Your task to perform on an android device: set an alarm Image 0: 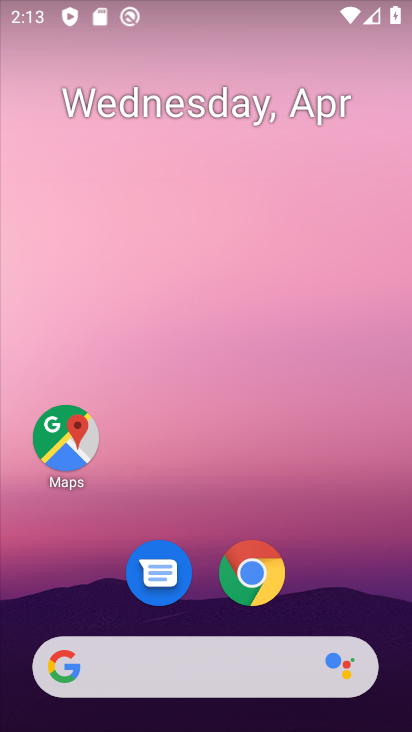
Step 0: drag from (333, 563) to (336, 177)
Your task to perform on an android device: set an alarm Image 1: 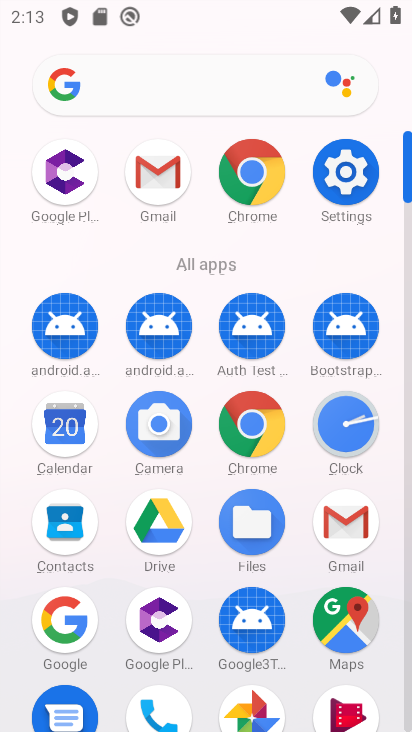
Step 1: click (342, 431)
Your task to perform on an android device: set an alarm Image 2: 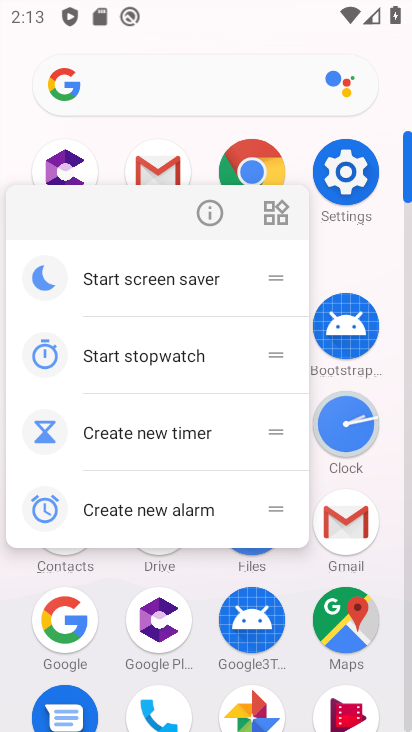
Step 2: click (368, 415)
Your task to perform on an android device: set an alarm Image 3: 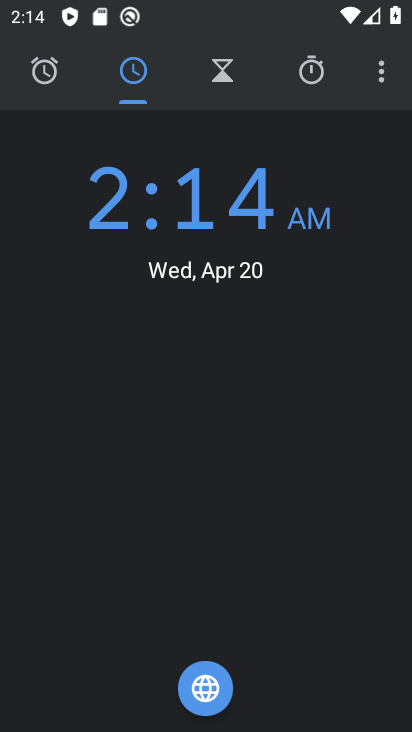
Step 3: click (48, 72)
Your task to perform on an android device: set an alarm Image 4: 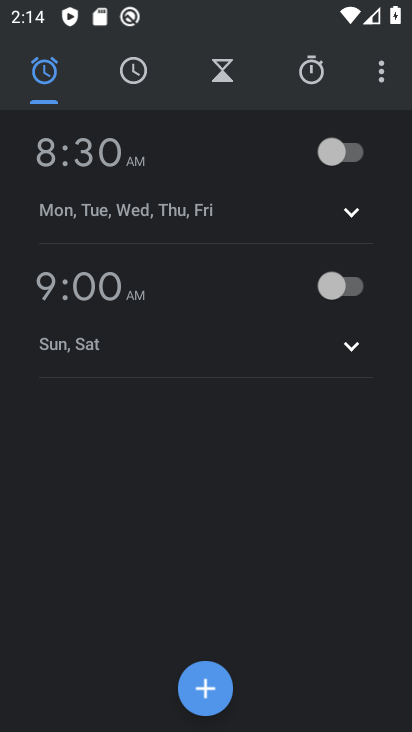
Step 4: click (205, 685)
Your task to perform on an android device: set an alarm Image 5: 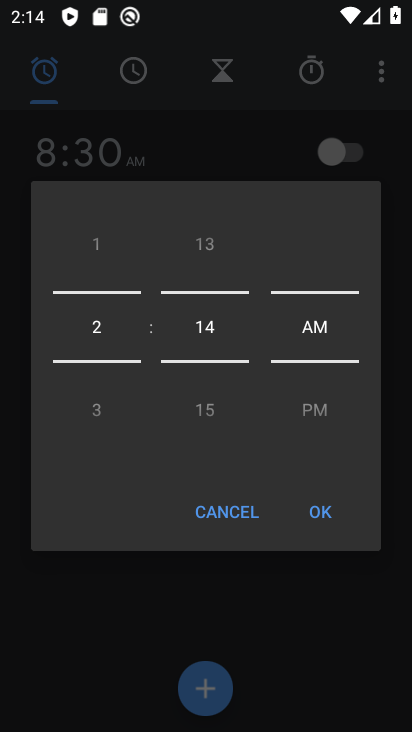
Step 5: click (321, 511)
Your task to perform on an android device: set an alarm Image 6: 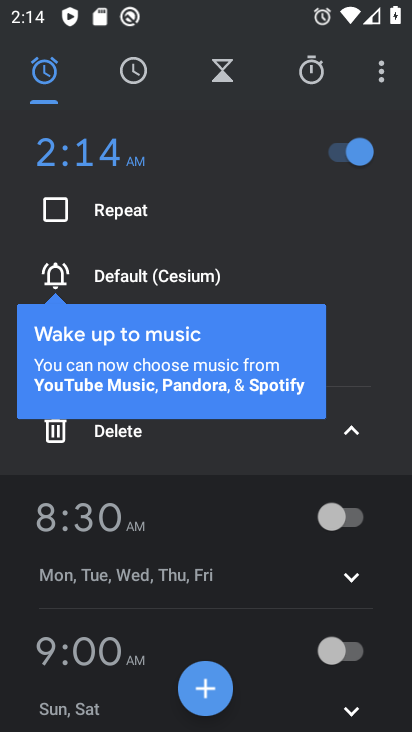
Step 6: task complete